Your task to perform on an android device: Open eBay Image 0: 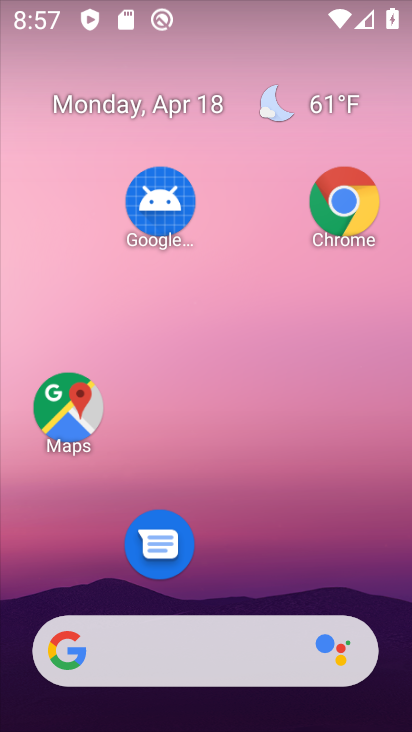
Step 0: click (328, 215)
Your task to perform on an android device: Open eBay Image 1: 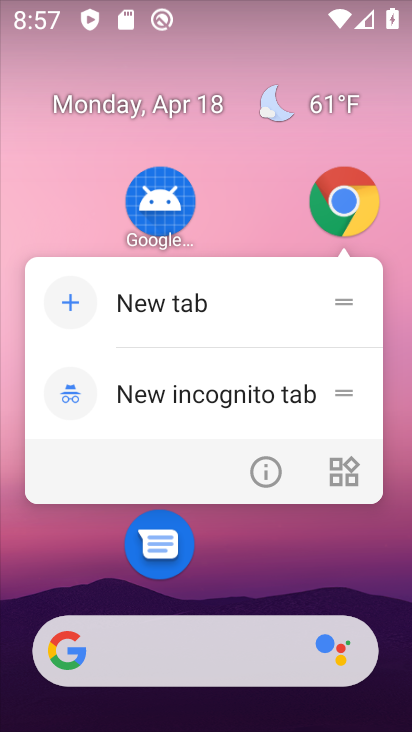
Step 1: click (324, 204)
Your task to perform on an android device: Open eBay Image 2: 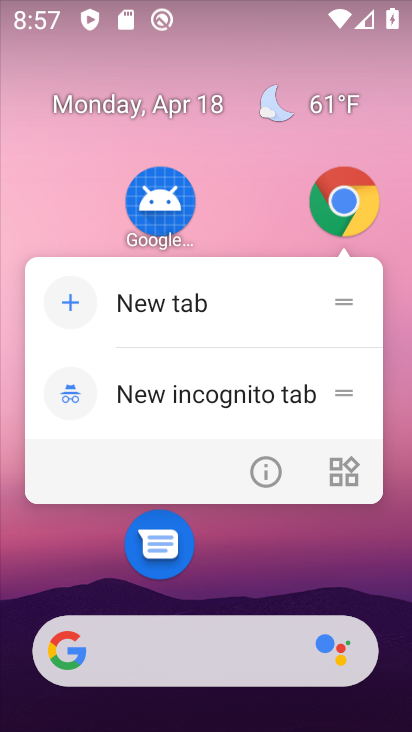
Step 2: click (341, 180)
Your task to perform on an android device: Open eBay Image 3: 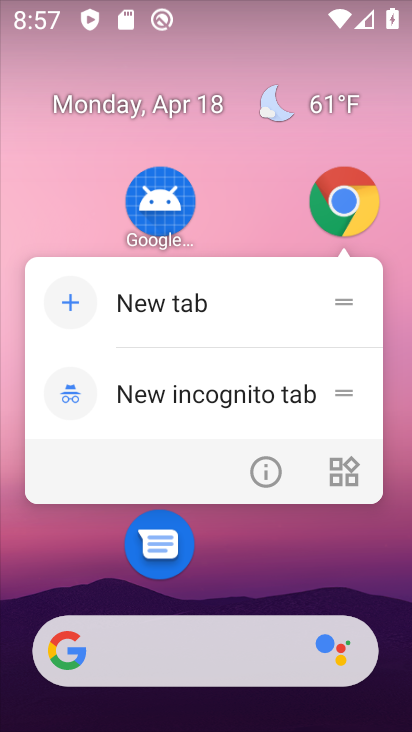
Step 3: click (337, 189)
Your task to perform on an android device: Open eBay Image 4: 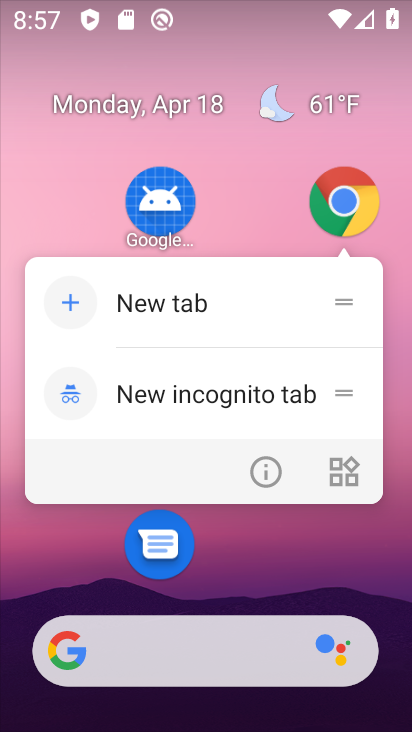
Step 4: click (337, 189)
Your task to perform on an android device: Open eBay Image 5: 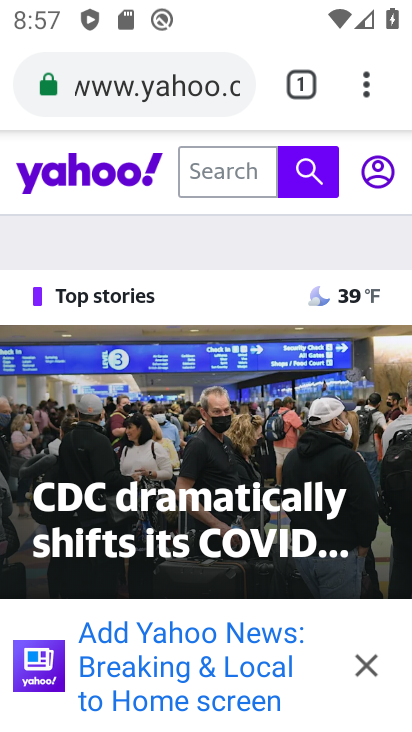
Step 5: click (316, 76)
Your task to perform on an android device: Open eBay Image 6: 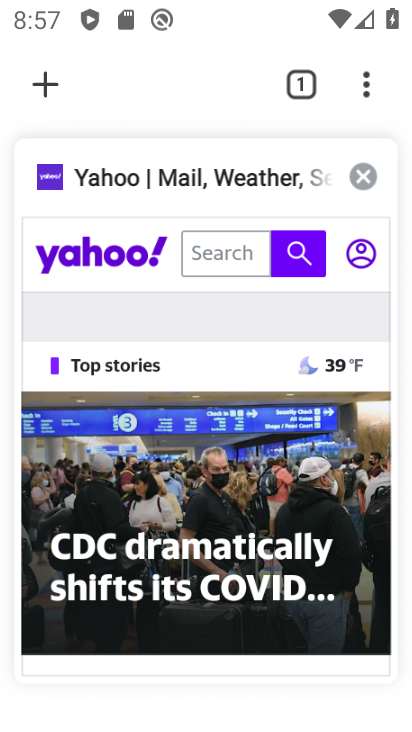
Step 6: click (50, 83)
Your task to perform on an android device: Open eBay Image 7: 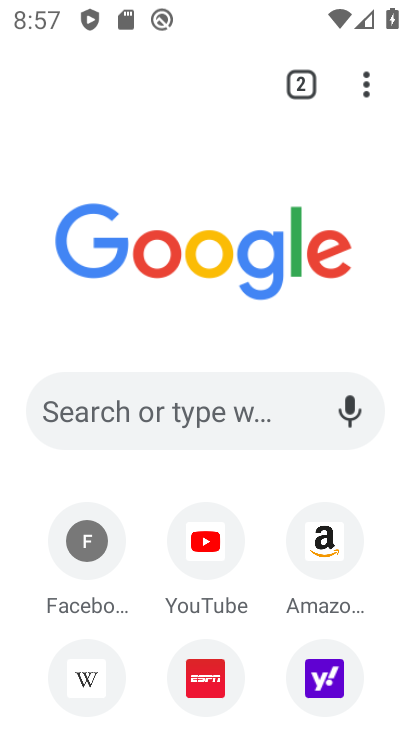
Step 7: drag from (259, 633) to (250, 332)
Your task to perform on an android device: Open eBay Image 8: 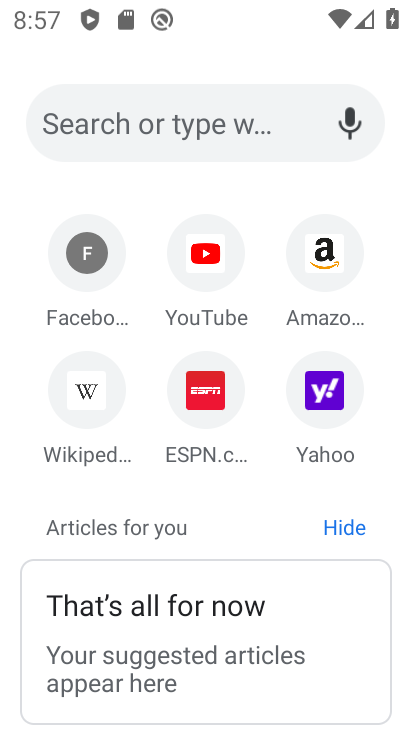
Step 8: click (196, 106)
Your task to perform on an android device: Open eBay Image 9: 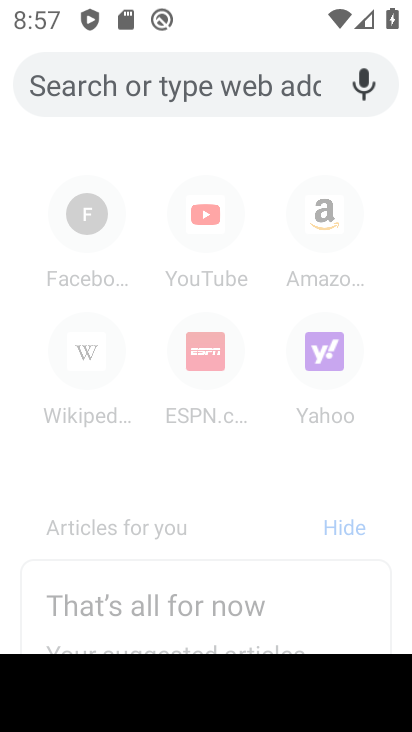
Step 9: type "ebay"
Your task to perform on an android device: Open eBay Image 10: 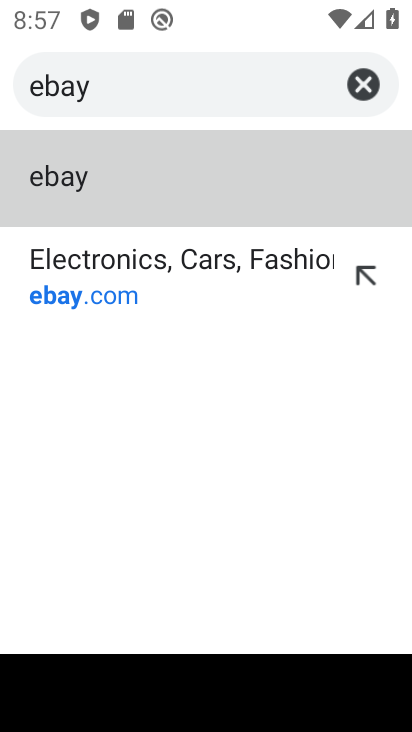
Step 10: click (87, 193)
Your task to perform on an android device: Open eBay Image 11: 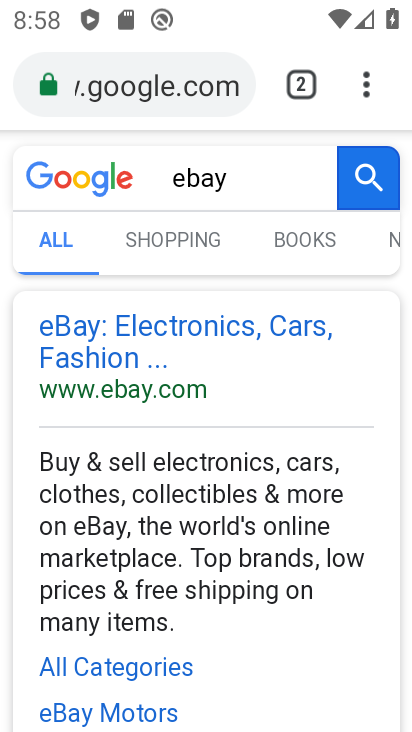
Step 11: task complete